Your task to perform on an android device: see tabs open on other devices in the chrome app Image 0: 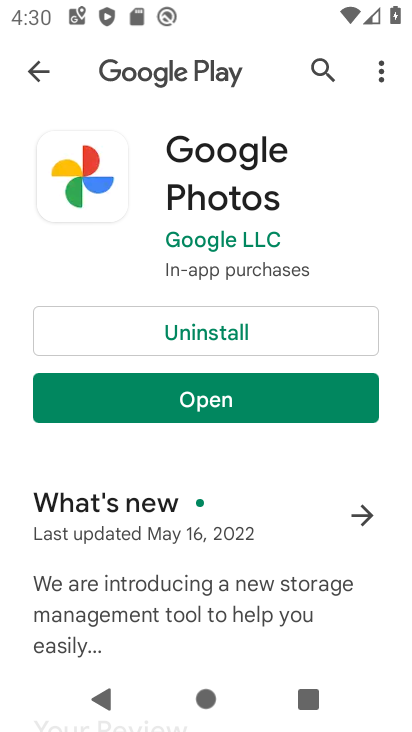
Step 0: press home button
Your task to perform on an android device: see tabs open on other devices in the chrome app Image 1: 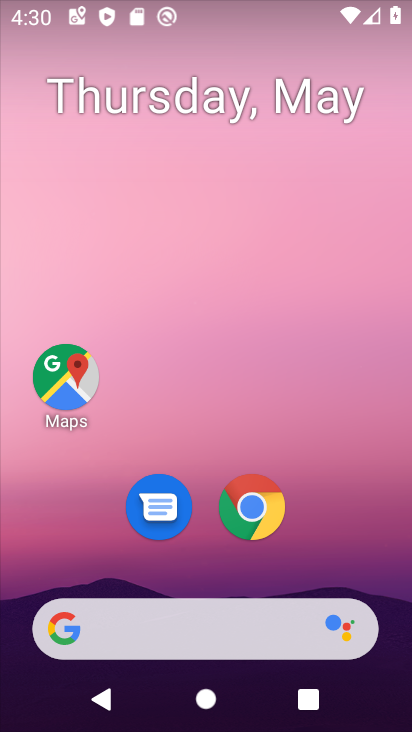
Step 1: drag from (230, 580) to (236, 200)
Your task to perform on an android device: see tabs open on other devices in the chrome app Image 2: 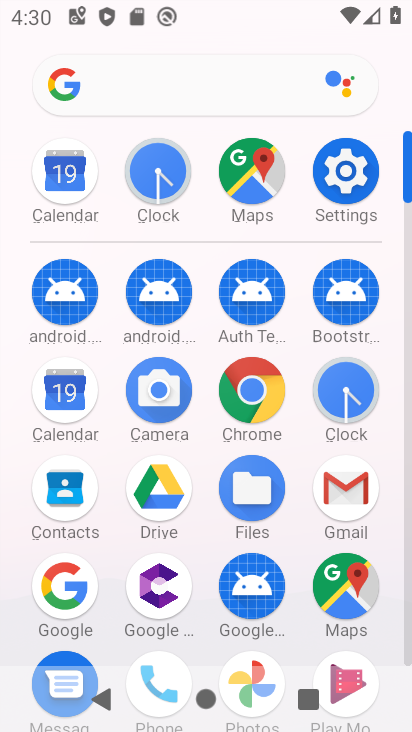
Step 2: click (253, 396)
Your task to perform on an android device: see tabs open on other devices in the chrome app Image 3: 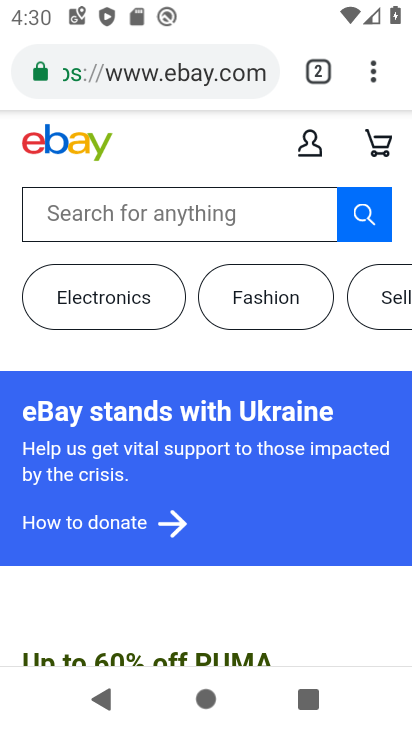
Step 3: click (371, 80)
Your task to perform on an android device: see tabs open on other devices in the chrome app Image 4: 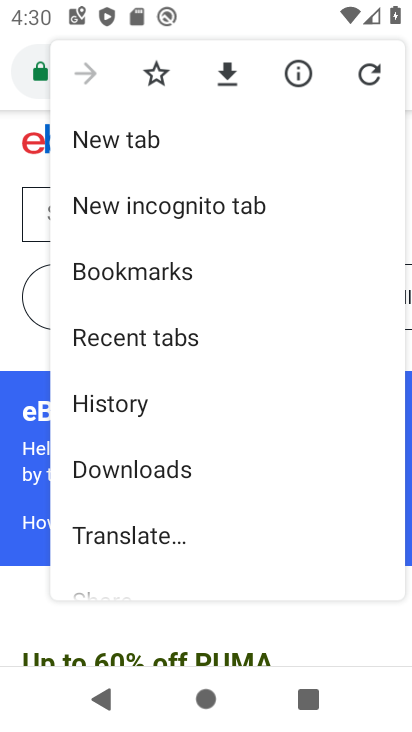
Step 4: click (151, 330)
Your task to perform on an android device: see tabs open on other devices in the chrome app Image 5: 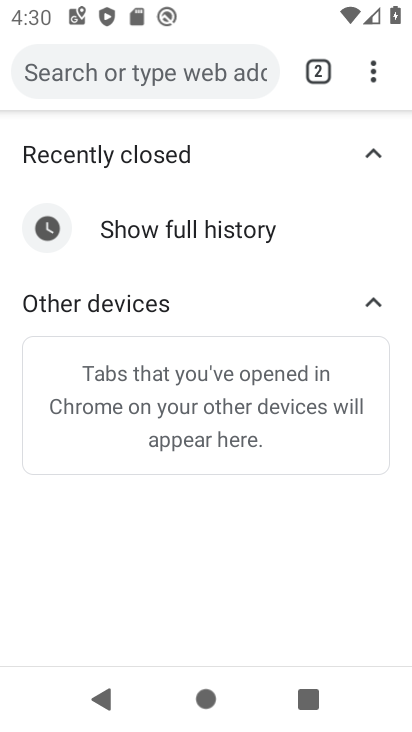
Step 5: task complete